Your task to perform on an android device: Clear the shopping cart on walmart. Image 0: 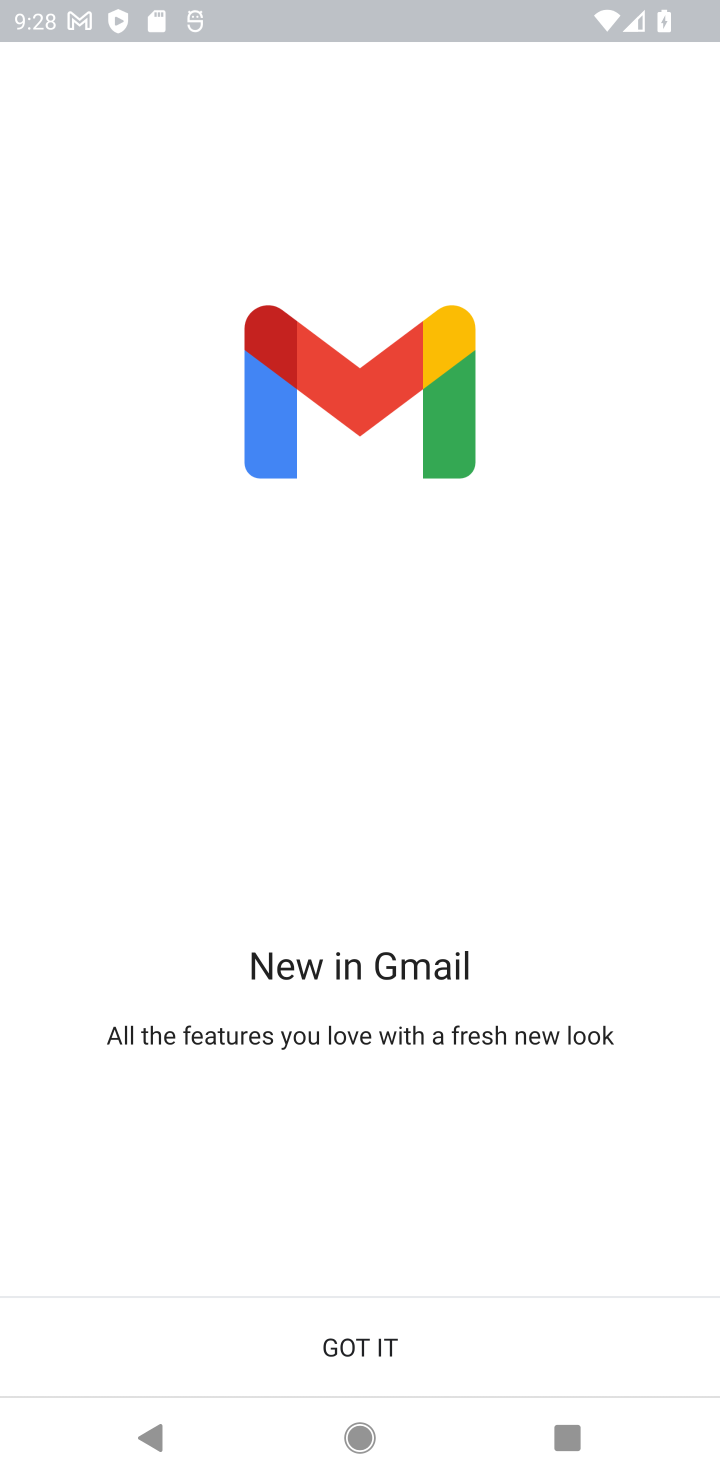
Step 0: press home button
Your task to perform on an android device: Clear the shopping cart on walmart. Image 1: 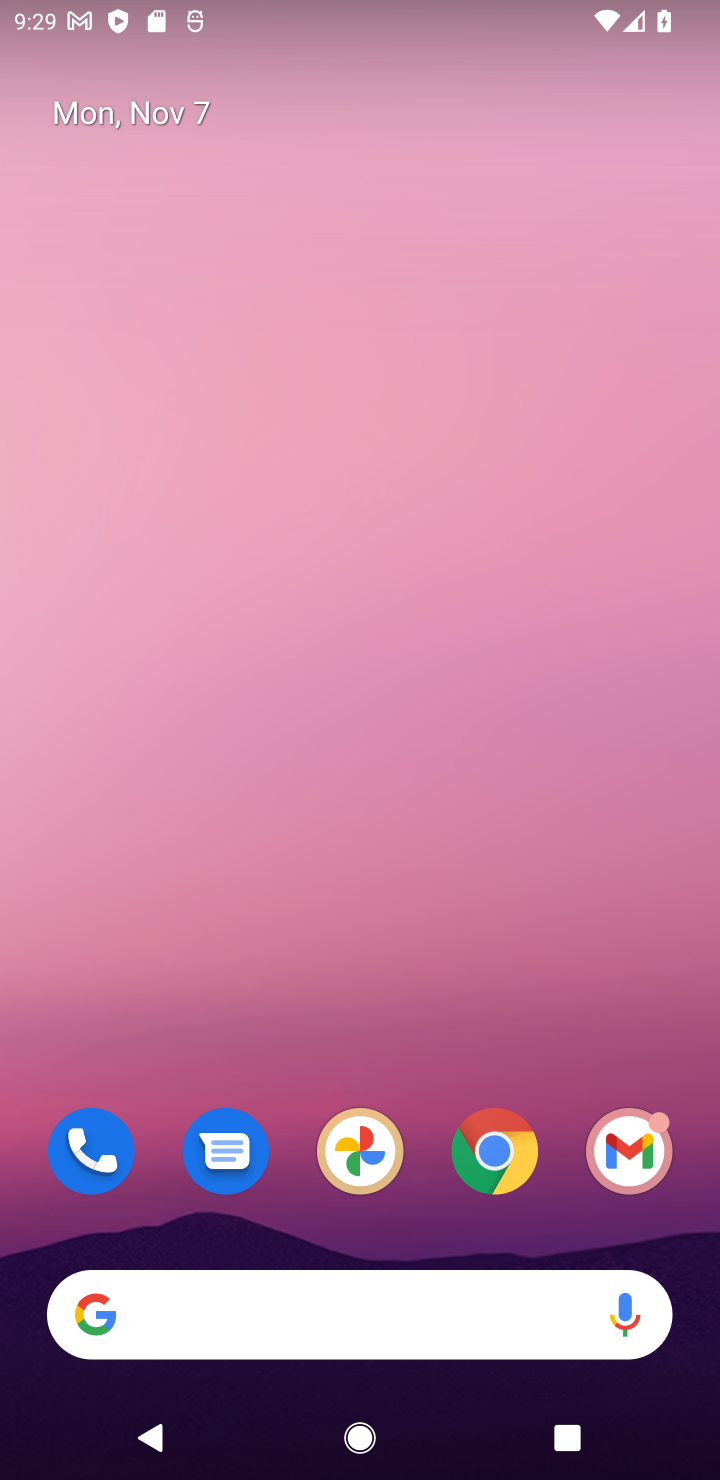
Step 1: click (499, 1162)
Your task to perform on an android device: Clear the shopping cart on walmart. Image 2: 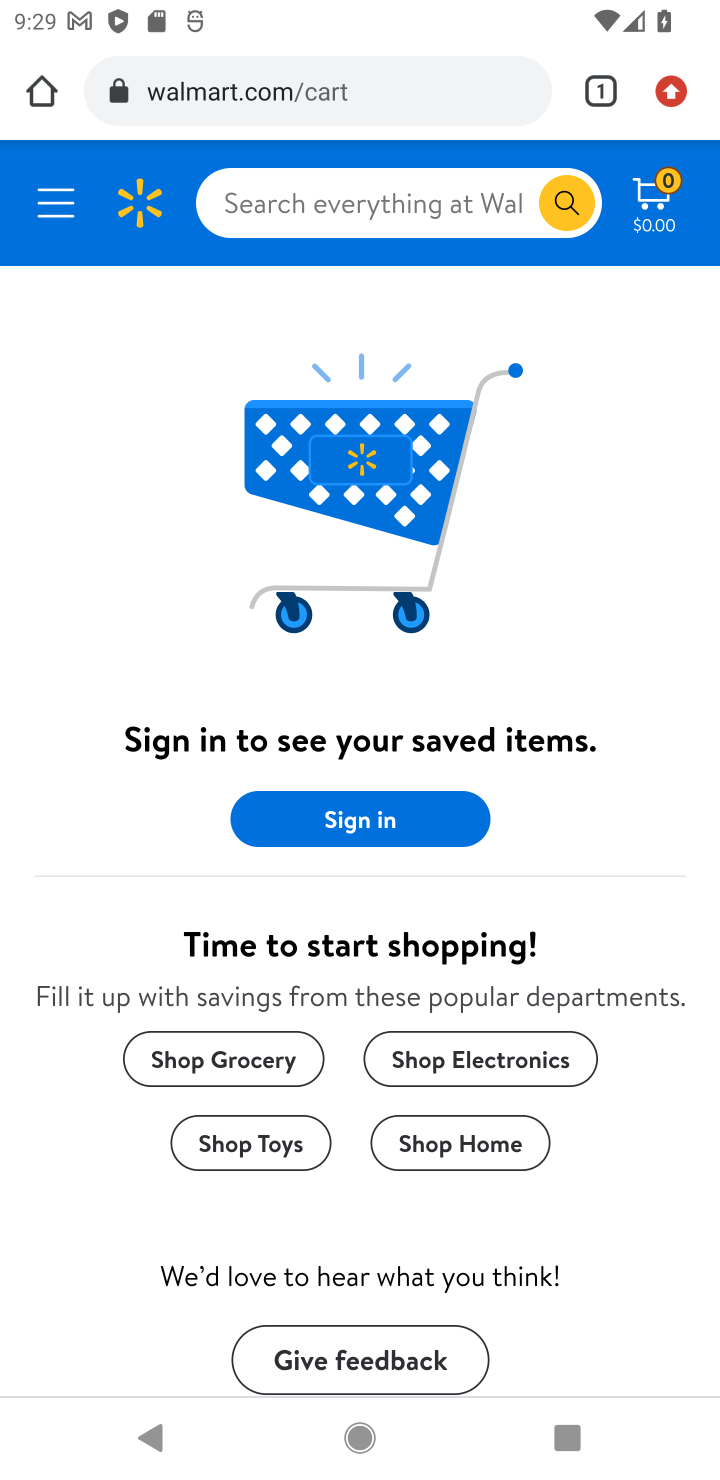
Step 2: task complete